Your task to perform on an android device: Open wifi settings Image 0: 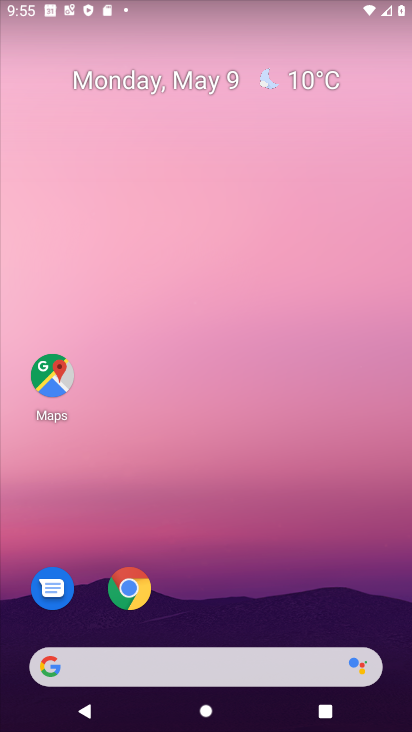
Step 0: drag from (225, 669) to (268, 176)
Your task to perform on an android device: Open wifi settings Image 1: 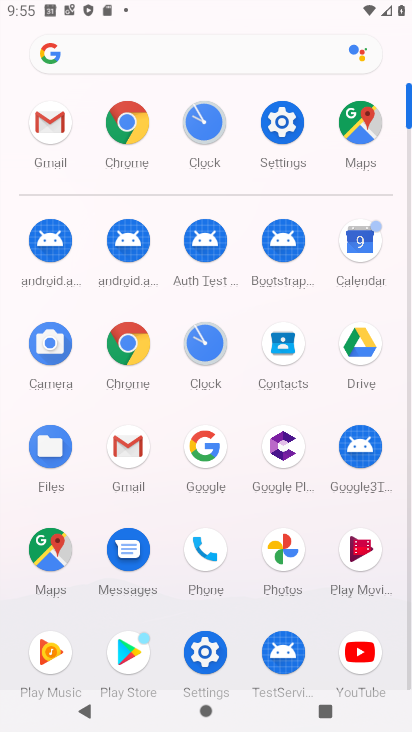
Step 1: click (284, 126)
Your task to perform on an android device: Open wifi settings Image 2: 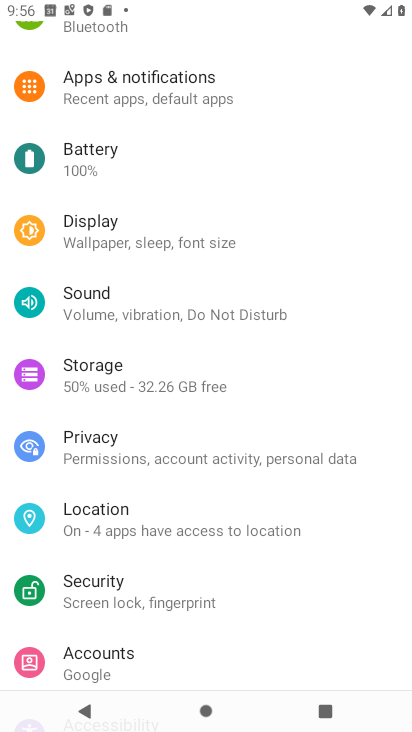
Step 2: drag from (308, 131) to (285, 494)
Your task to perform on an android device: Open wifi settings Image 3: 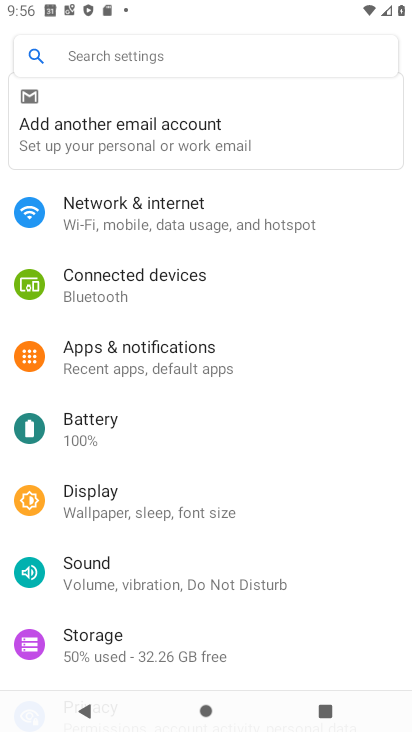
Step 3: click (197, 215)
Your task to perform on an android device: Open wifi settings Image 4: 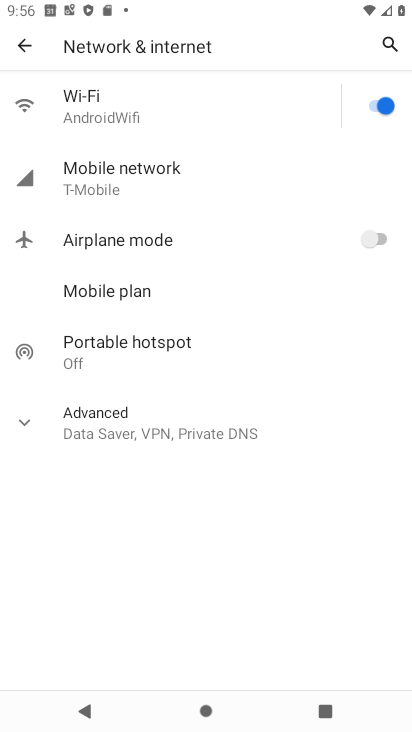
Step 4: click (123, 108)
Your task to perform on an android device: Open wifi settings Image 5: 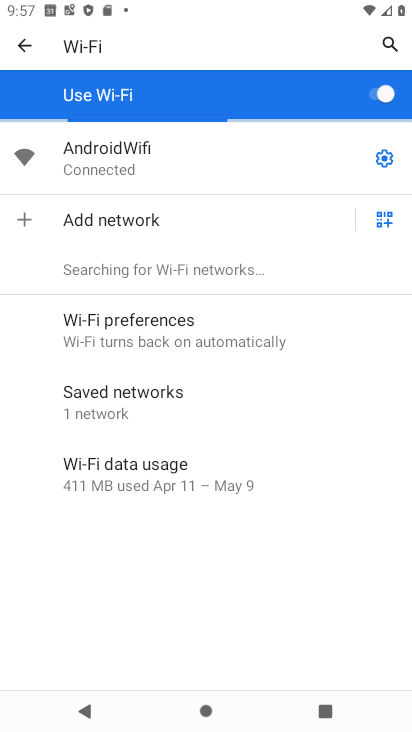
Step 5: task complete